Your task to perform on an android device: add a contact in the contacts app Image 0: 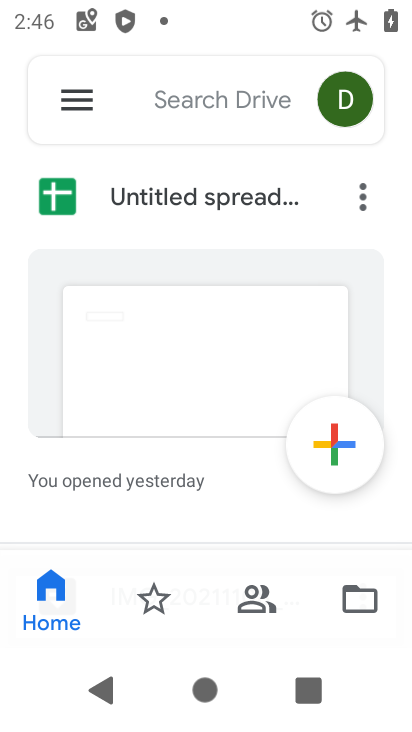
Step 0: press home button
Your task to perform on an android device: add a contact in the contacts app Image 1: 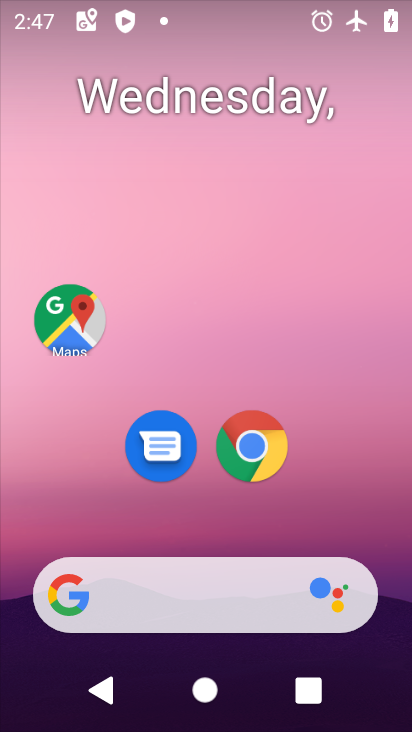
Step 1: drag from (206, 520) to (204, 221)
Your task to perform on an android device: add a contact in the contacts app Image 2: 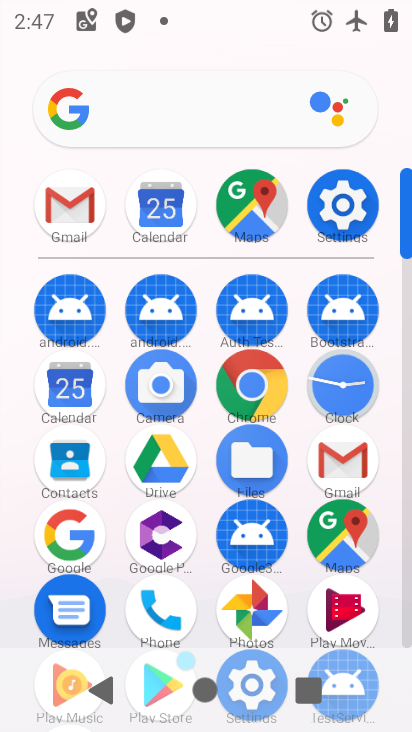
Step 2: click (68, 483)
Your task to perform on an android device: add a contact in the contacts app Image 3: 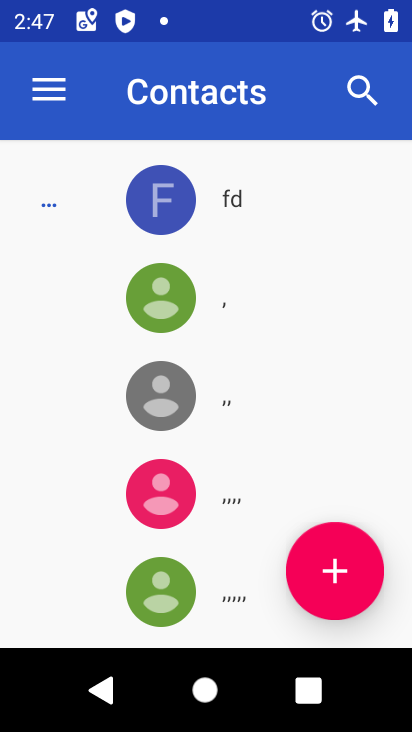
Step 3: click (339, 546)
Your task to perform on an android device: add a contact in the contacts app Image 4: 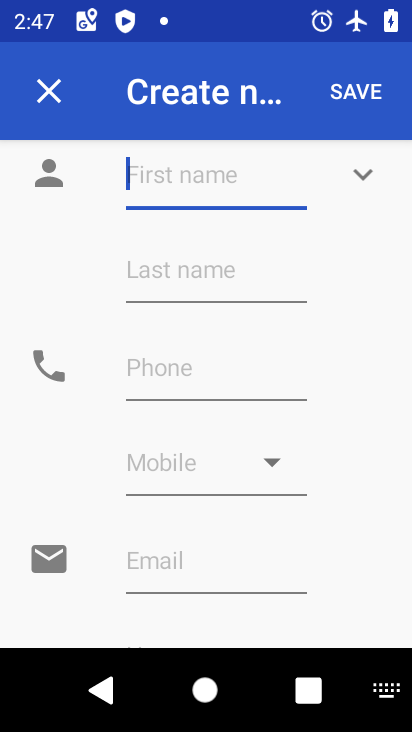
Step 4: type "fbfbgc"
Your task to perform on an android device: add a contact in the contacts app Image 5: 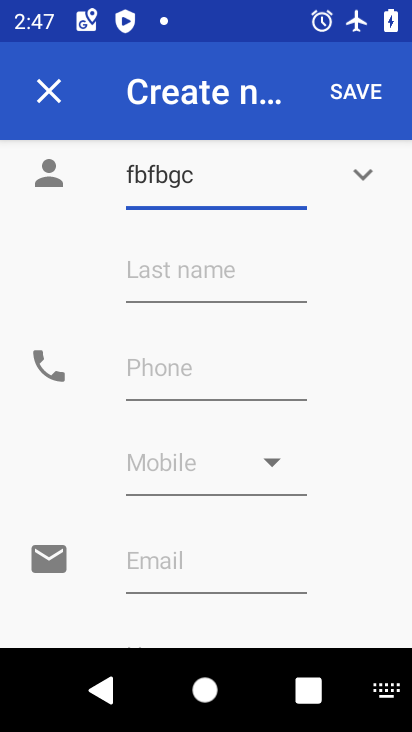
Step 5: click (174, 383)
Your task to perform on an android device: add a contact in the contacts app Image 6: 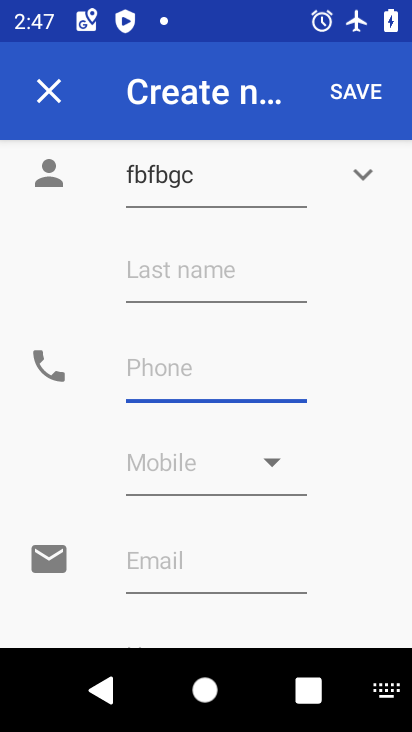
Step 6: type "9764746457"
Your task to perform on an android device: add a contact in the contacts app Image 7: 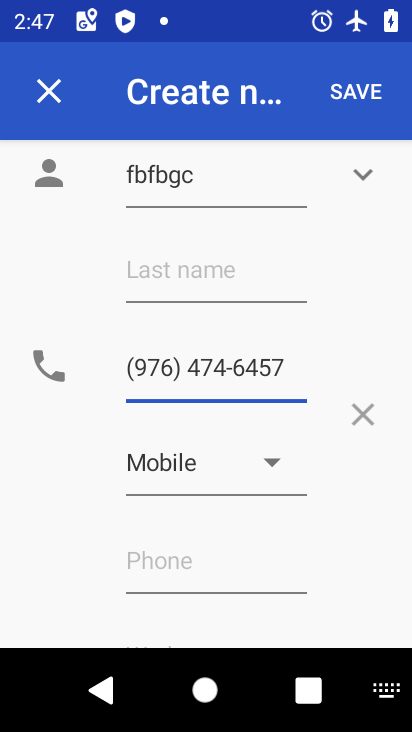
Step 7: click (373, 92)
Your task to perform on an android device: add a contact in the contacts app Image 8: 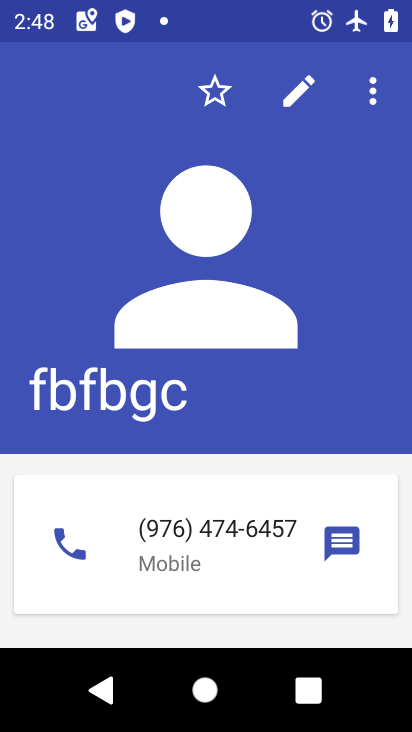
Step 8: task complete